Your task to perform on an android device: Open CNN.com Image 0: 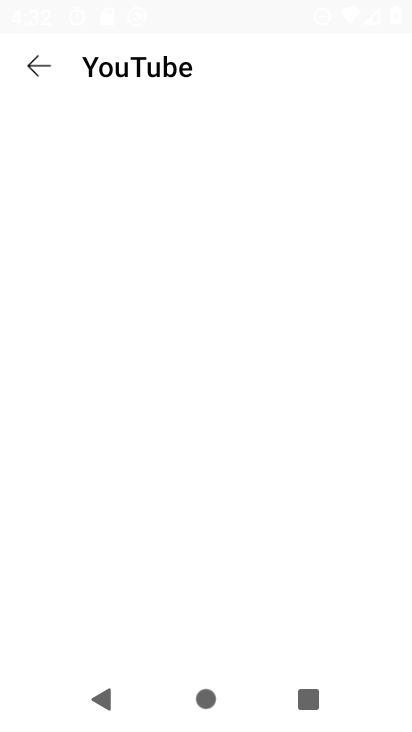
Step 0: press back button
Your task to perform on an android device: Open CNN.com Image 1: 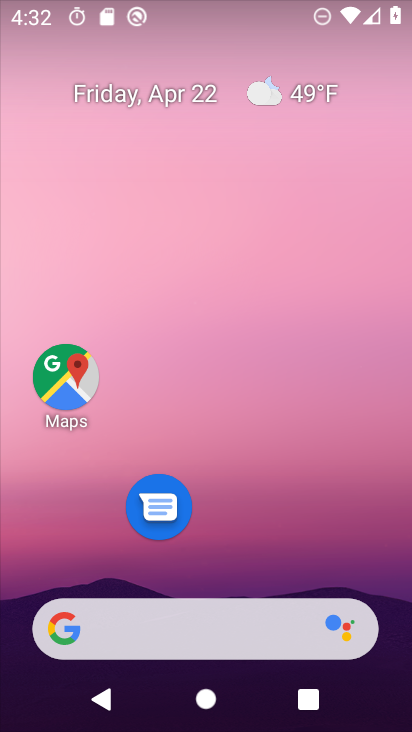
Step 1: press home button
Your task to perform on an android device: Open CNN.com Image 2: 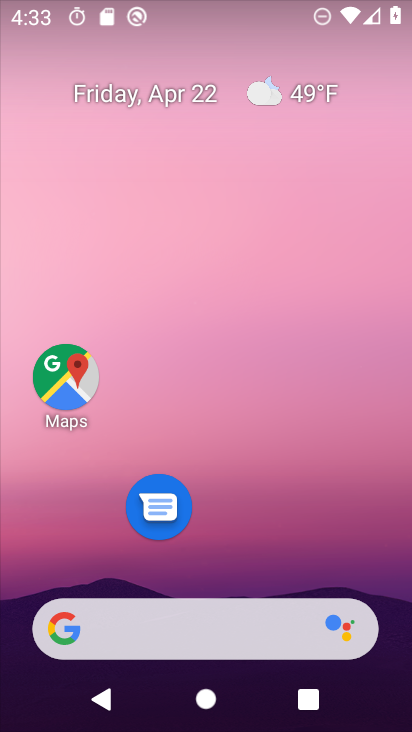
Step 2: drag from (172, 586) to (285, 83)
Your task to perform on an android device: Open CNN.com Image 3: 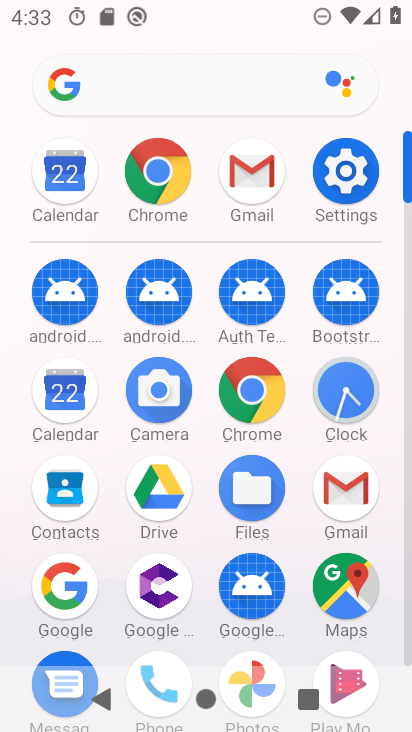
Step 3: click (150, 170)
Your task to perform on an android device: Open CNN.com Image 4: 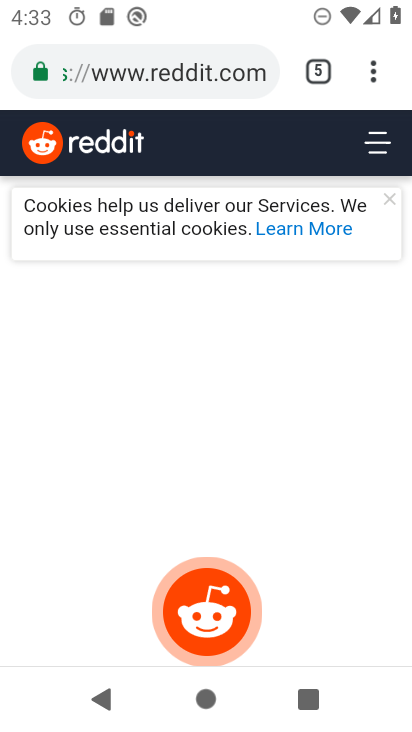
Step 4: click (318, 69)
Your task to perform on an android device: Open CNN.com Image 5: 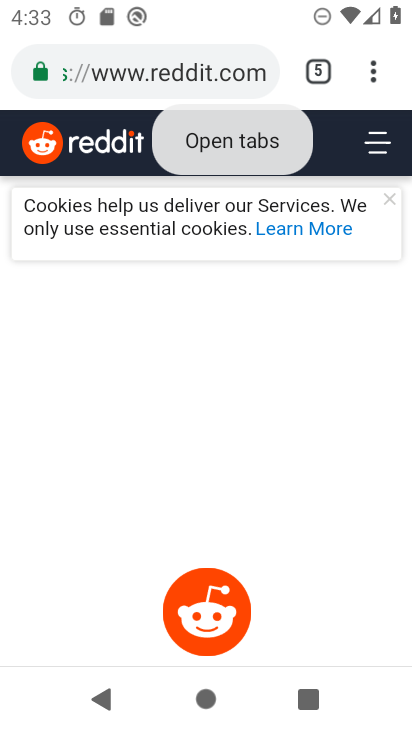
Step 5: click (312, 68)
Your task to perform on an android device: Open CNN.com Image 6: 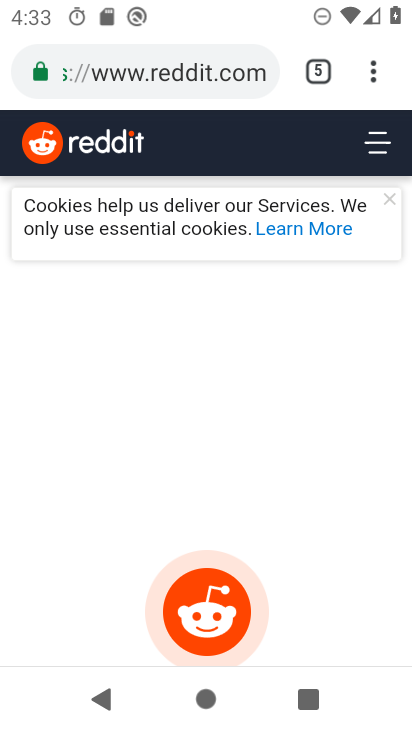
Step 6: click (316, 68)
Your task to perform on an android device: Open CNN.com Image 7: 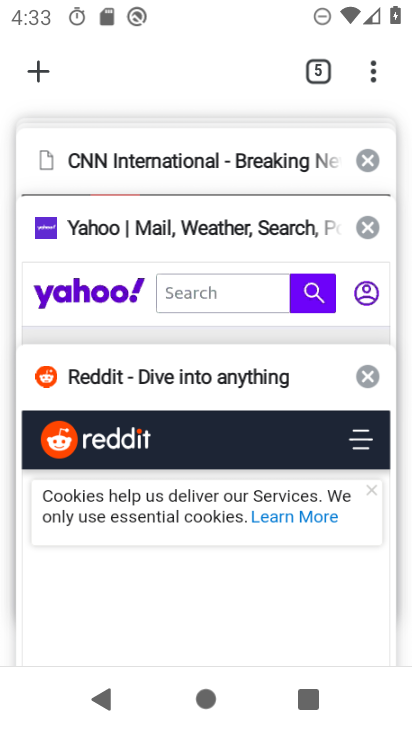
Step 7: click (134, 161)
Your task to perform on an android device: Open CNN.com Image 8: 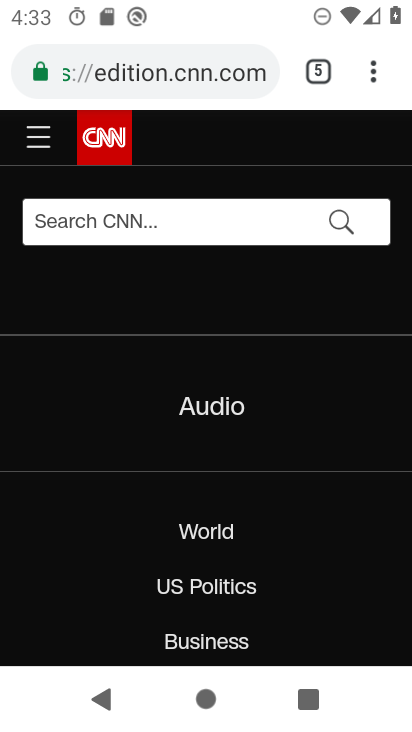
Step 8: task complete